Your task to perform on an android device: How do I get to the nearest Best Buy? Image 0: 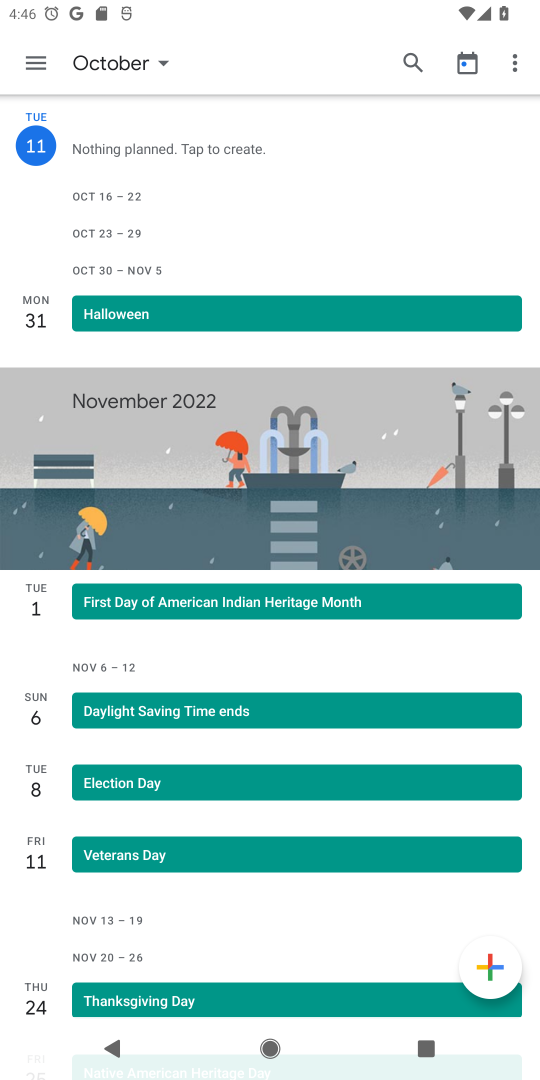
Step 0: press home button
Your task to perform on an android device: How do I get to the nearest Best Buy? Image 1: 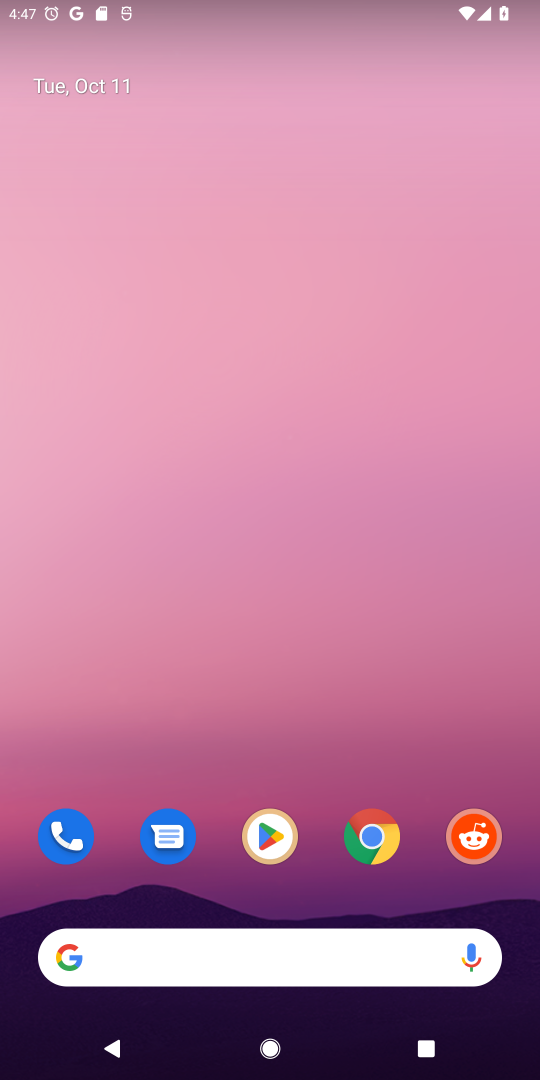
Step 1: click (340, 951)
Your task to perform on an android device: How do I get to the nearest Best Buy? Image 2: 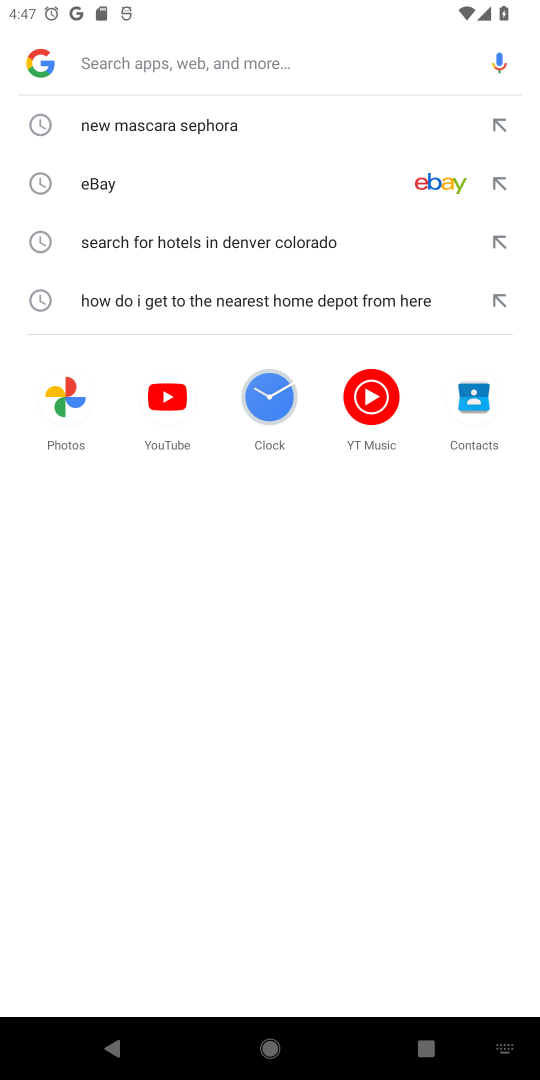
Step 2: type " the nearest Best Buuy"
Your task to perform on an android device: How do I get to the nearest Best Buy? Image 3: 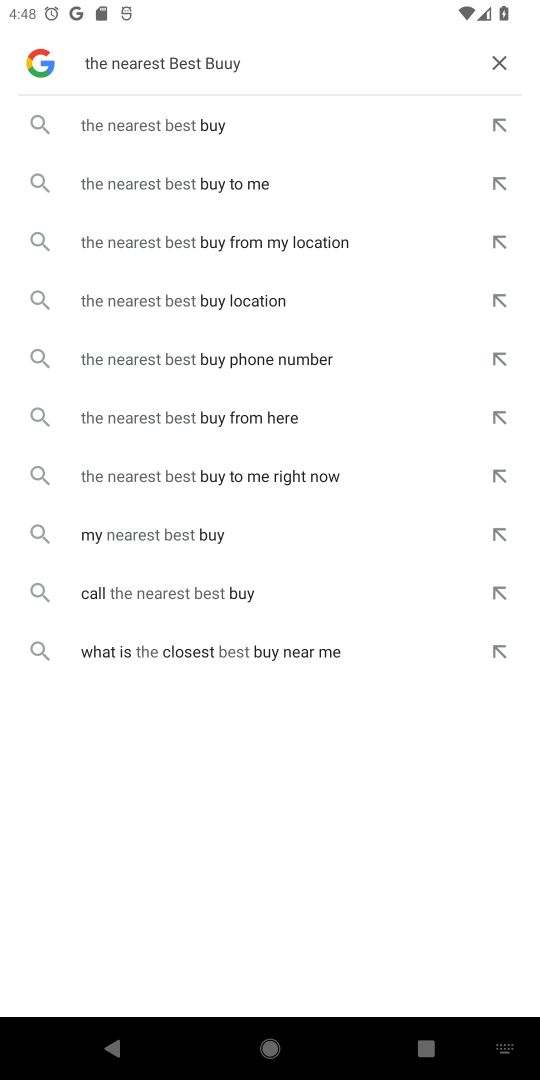
Step 3: click (280, 129)
Your task to perform on an android device: How do I get to the nearest Best Buy? Image 4: 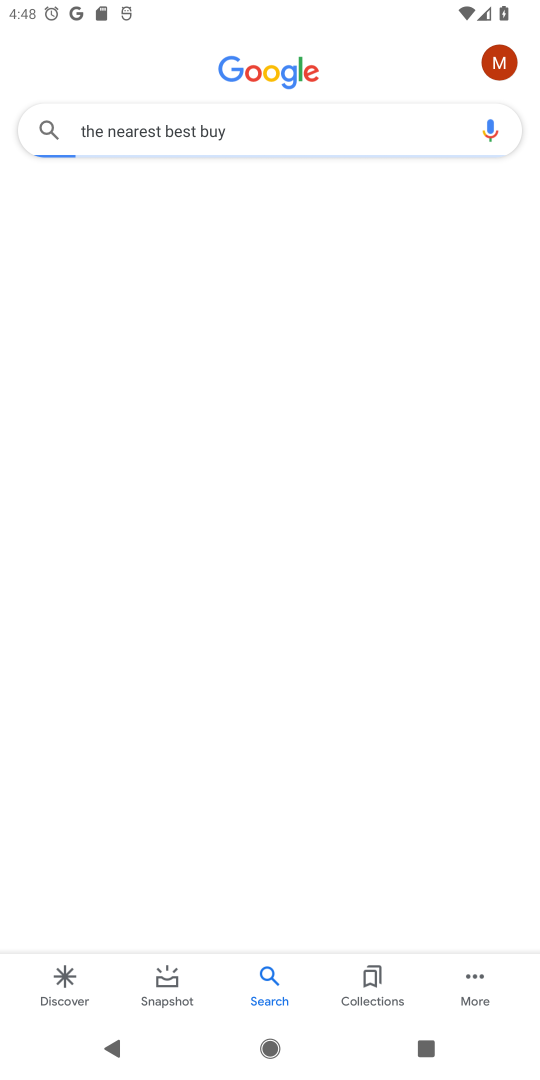
Step 4: task complete